Your task to perform on an android device: turn off improve location accuracy Image 0: 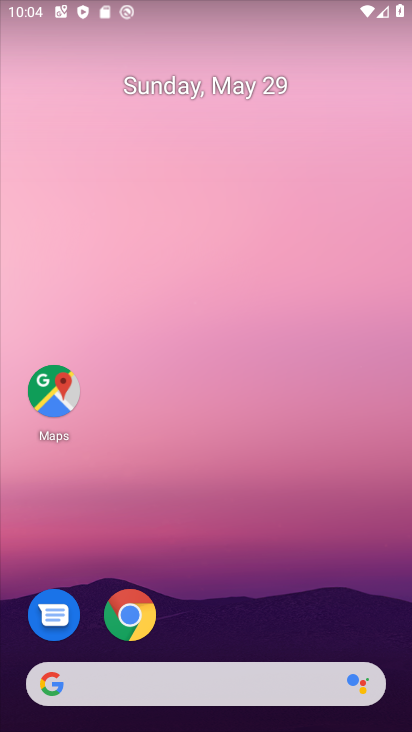
Step 0: drag from (219, 647) to (227, 3)
Your task to perform on an android device: turn off improve location accuracy Image 1: 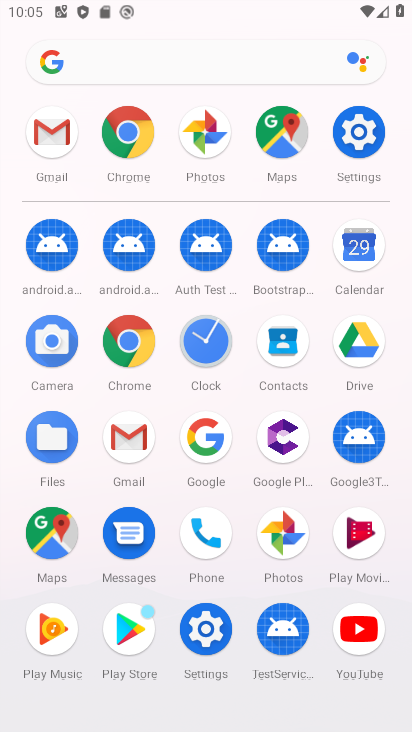
Step 1: click (193, 614)
Your task to perform on an android device: turn off improve location accuracy Image 2: 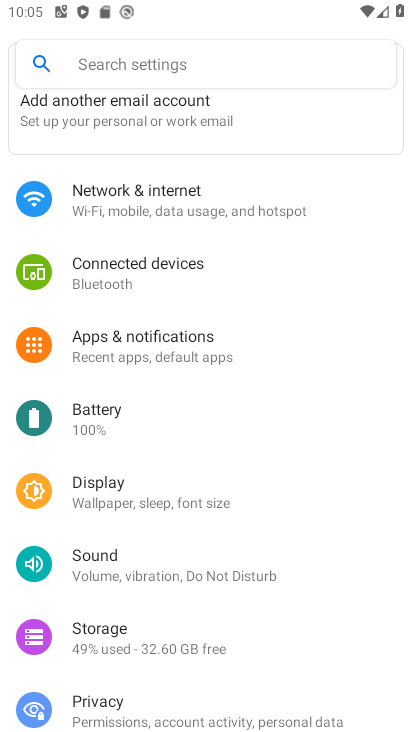
Step 2: drag from (154, 653) to (136, 369)
Your task to perform on an android device: turn off improve location accuracy Image 3: 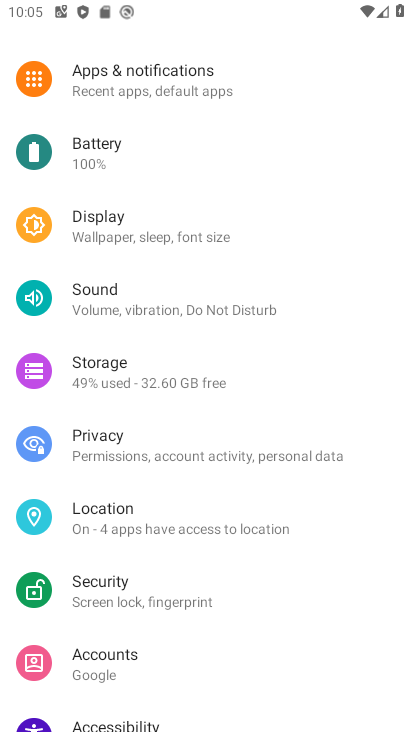
Step 3: click (146, 512)
Your task to perform on an android device: turn off improve location accuracy Image 4: 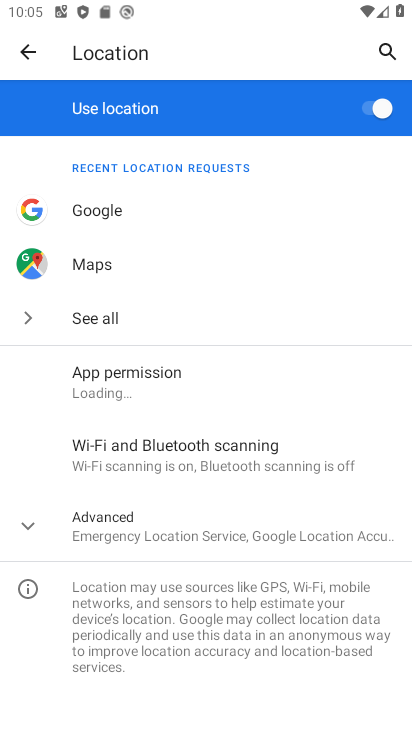
Step 4: click (148, 518)
Your task to perform on an android device: turn off improve location accuracy Image 5: 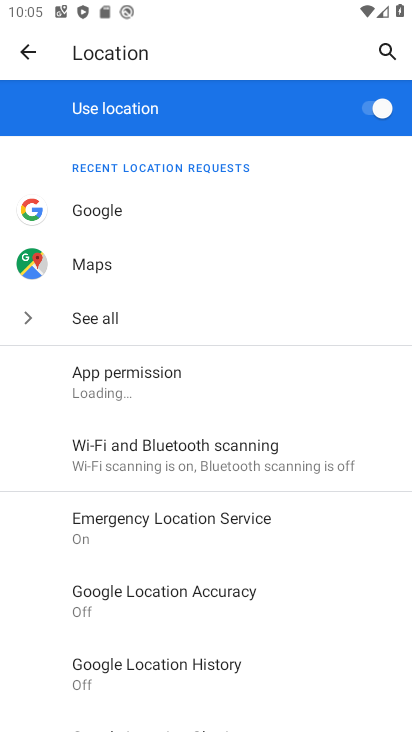
Step 5: click (154, 596)
Your task to perform on an android device: turn off improve location accuracy Image 6: 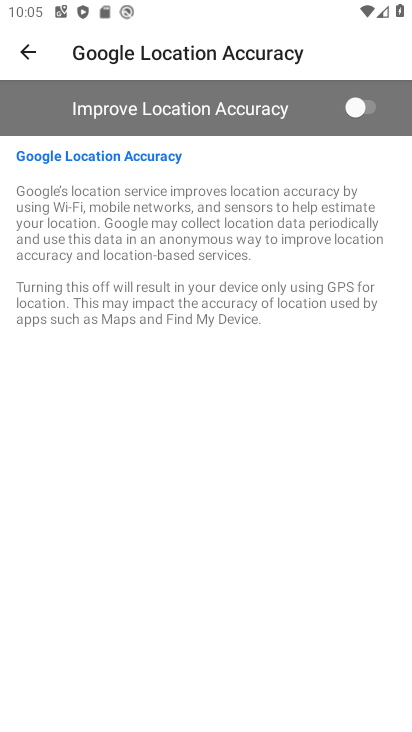
Step 6: task complete